Your task to perform on an android device: Turn off the flashlight Image 0: 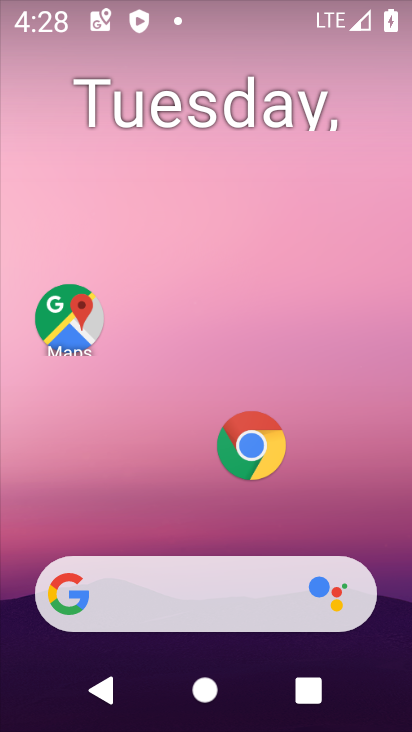
Step 0: drag from (201, 539) to (244, 1)
Your task to perform on an android device: Turn off the flashlight Image 1: 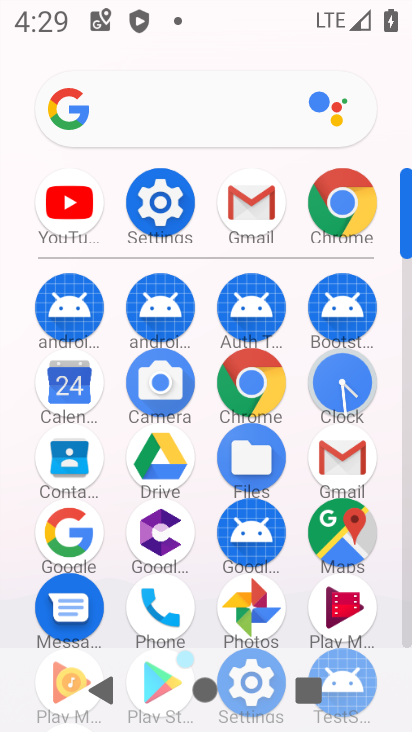
Step 1: click (161, 214)
Your task to perform on an android device: Turn off the flashlight Image 2: 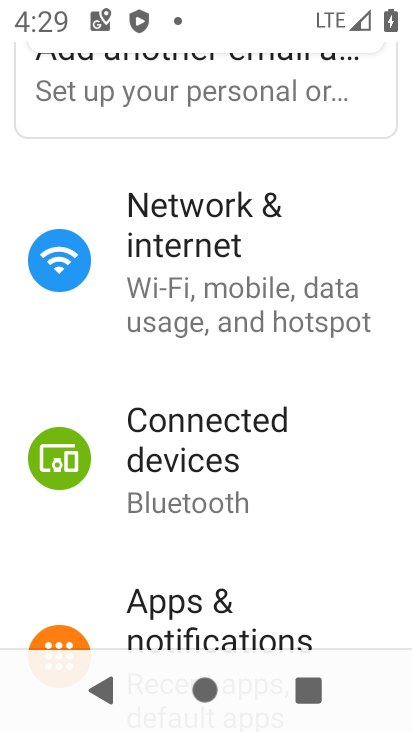
Step 2: drag from (249, 248) to (239, 416)
Your task to perform on an android device: Turn off the flashlight Image 3: 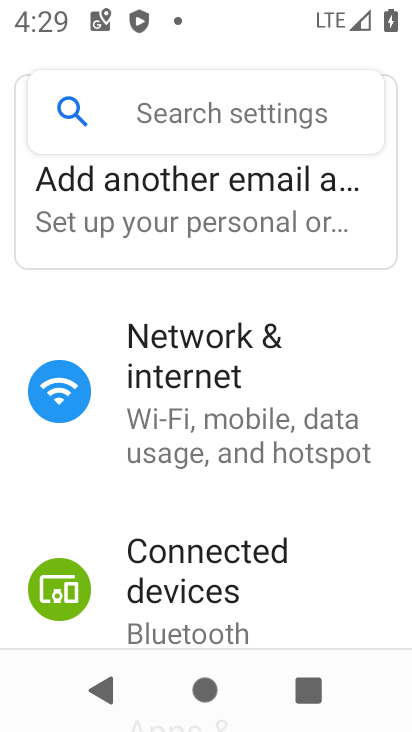
Step 3: click (160, 109)
Your task to perform on an android device: Turn off the flashlight Image 4: 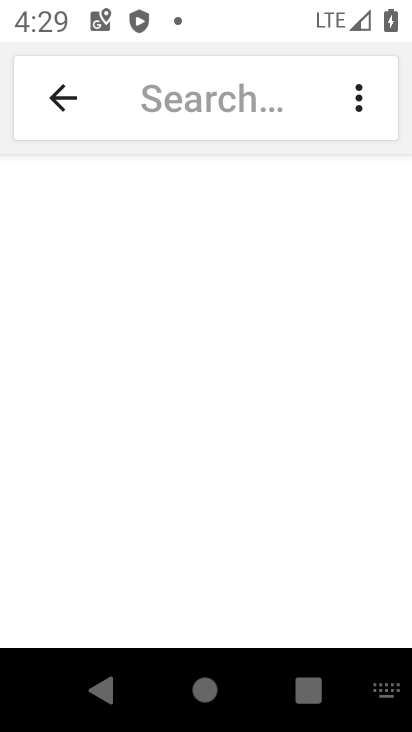
Step 4: type "flashlight"
Your task to perform on an android device: Turn off the flashlight Image 5: 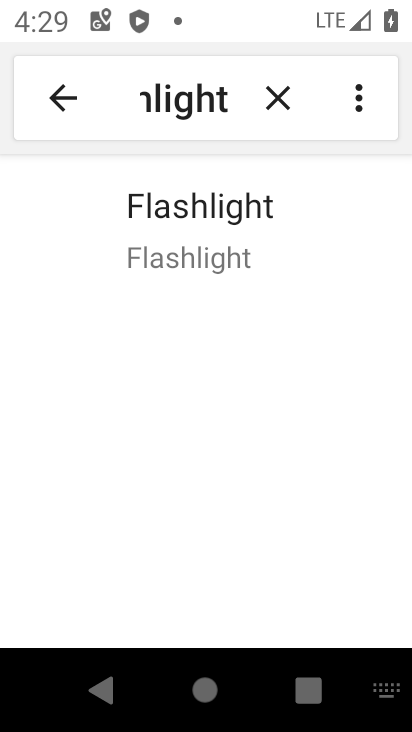
Step 5: click (223, 234)
Your task to perform on an android device: Turn off the flashlight Image 6: 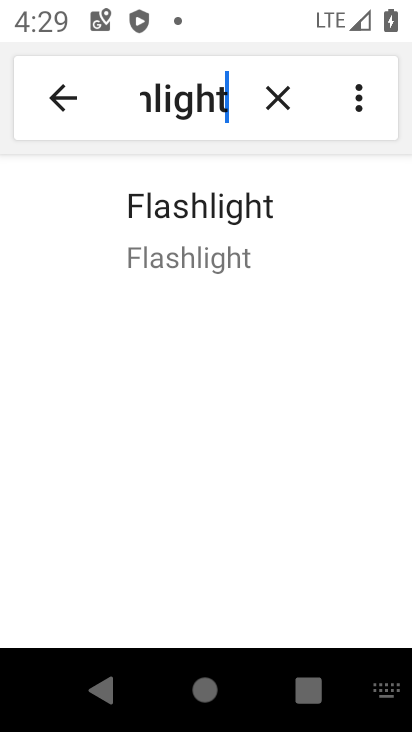
Step 6: click (224, 253)
Your task to perform on an android device: Turn off the flashlight Image 7: 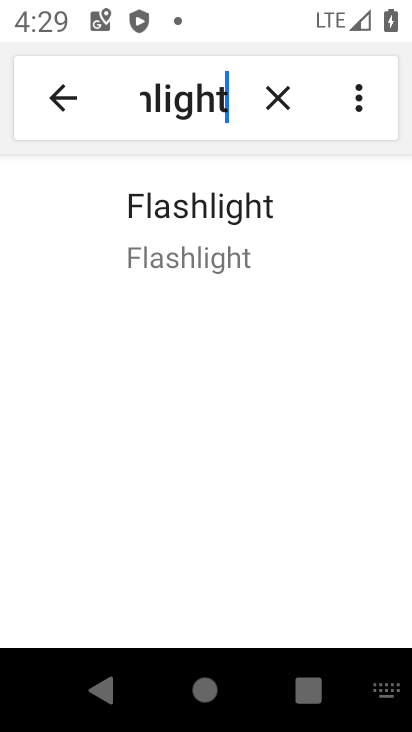
Step 7: click (226, 252)
Your task to perform on an android device: Turn off the flashlight Image 8: 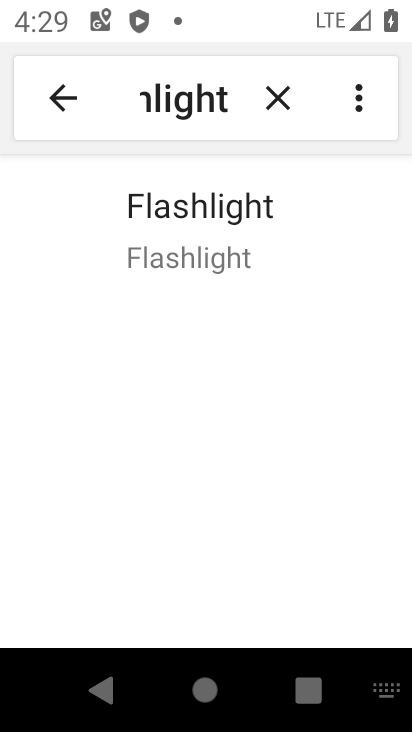
Step 8: task complete